Your task to perform on an android device: Turn off the flashlight Image 0: 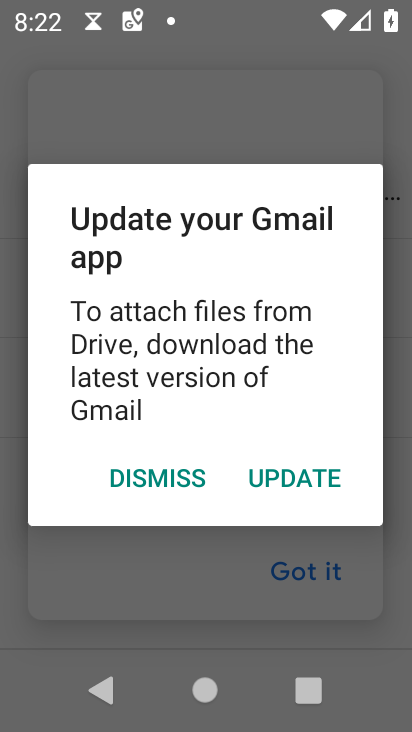
Step 0: press home button
Your task to perform on an android device: Turn off the flashlight Image 1: 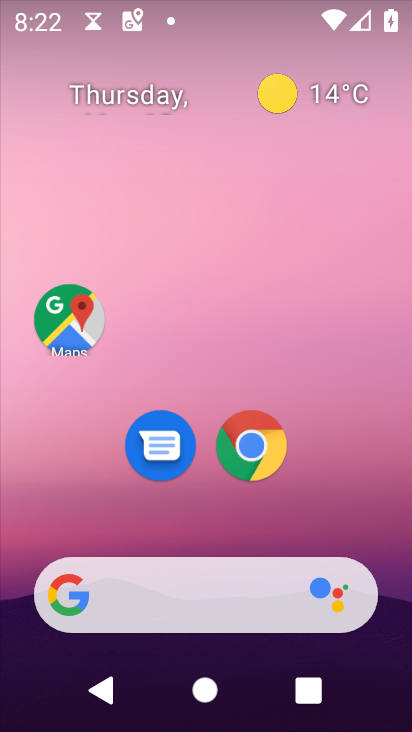
Step 1: drag from (231, 727) to (235, 147)
Your task to perform on an android device: Turn off the flashlight Image 2: 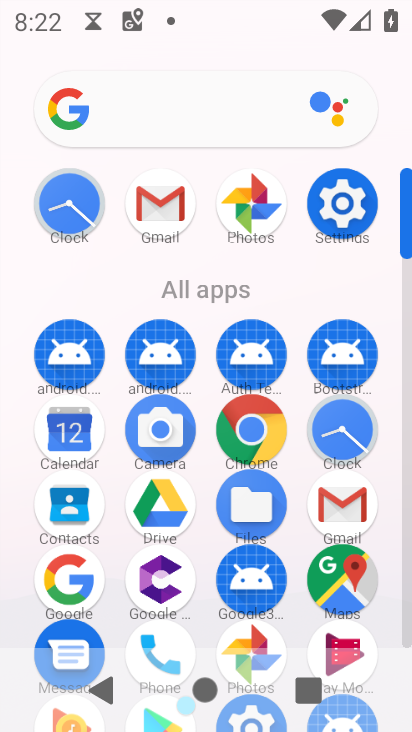
Step 2: click (335, 198)
Your task to perform on an android device: Turn off the flashlight Image 3: 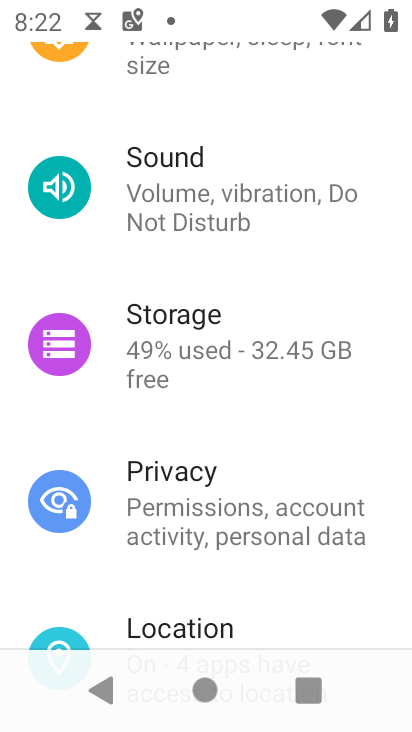
Step 3: task complete